Your task to perform on an android device: Open sound settings Image 0: 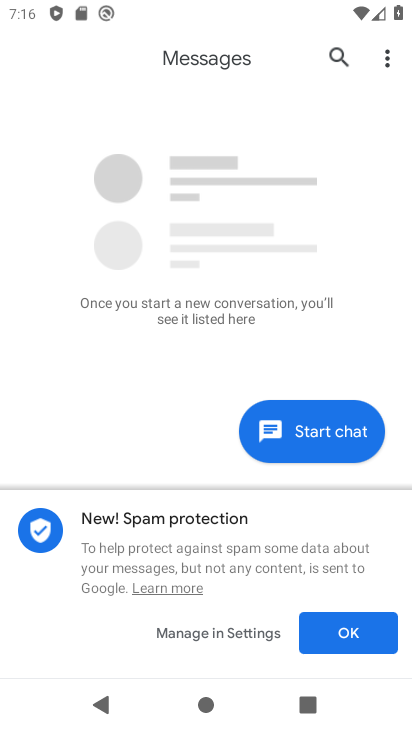
Step 0: press home button
Your task to perform on an android device: Open sound settings Image 1: 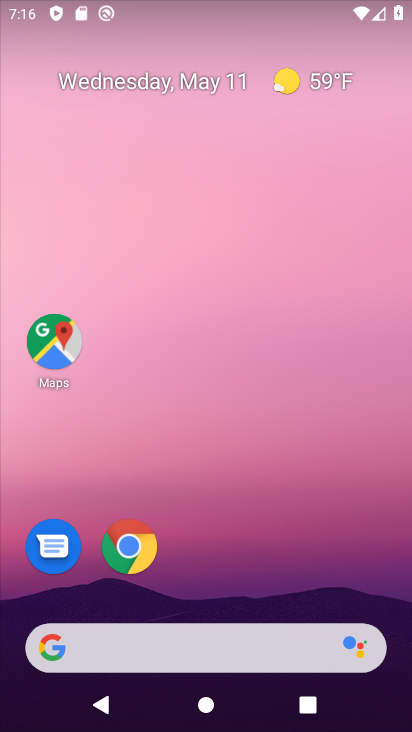
Step 1: drag from (331, 581) to (303, 262)
Your task to perform on an android device: Open sound settings Image 2: 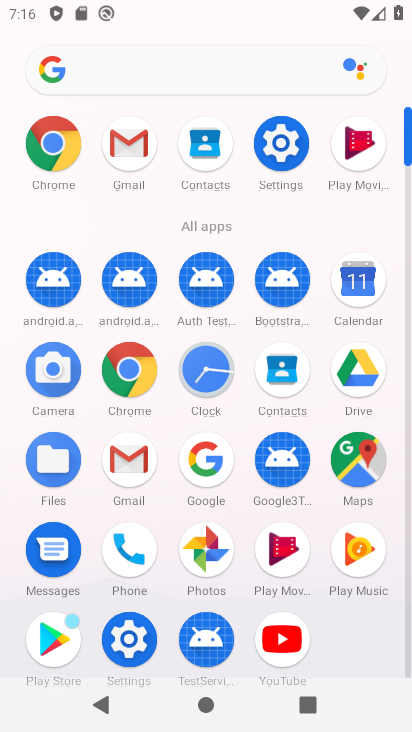
Step 2: click (122, 650)
Your task to perform on an android device: Open sound settings Image 3: 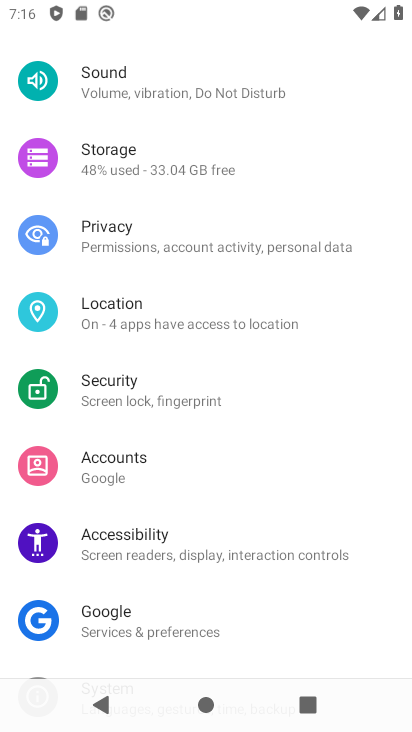
Step 3: click (211, 100)
Your task to perform on an android device: Open sound settings Image 4: 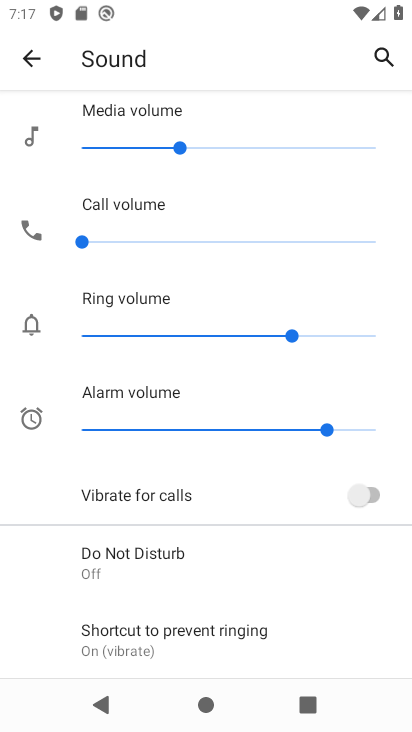
Step 4: task complete